Your task to perform on an android device: Is it going to rain today? Image 0: 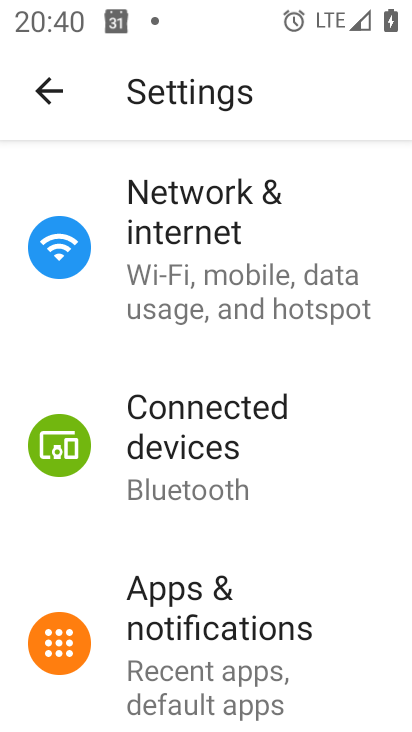
Step 0: press home button
Your task to perform on an android device: Is it going to rain today? Image 1: 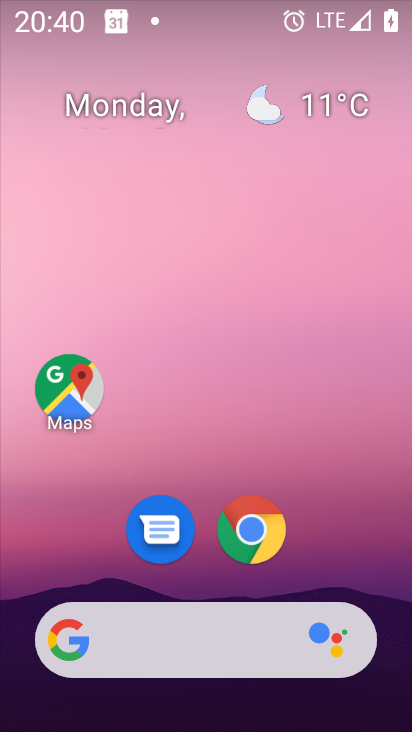
Step 1: click (323, 98)
Your task to perform on an android device: Is it going to rain today? Image 2: 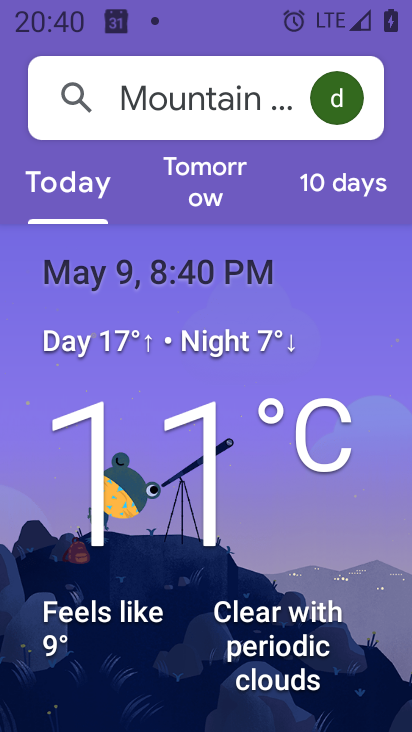
Step 2: task complete